Your task to perform on an android device: change keyboard looks Image 0: 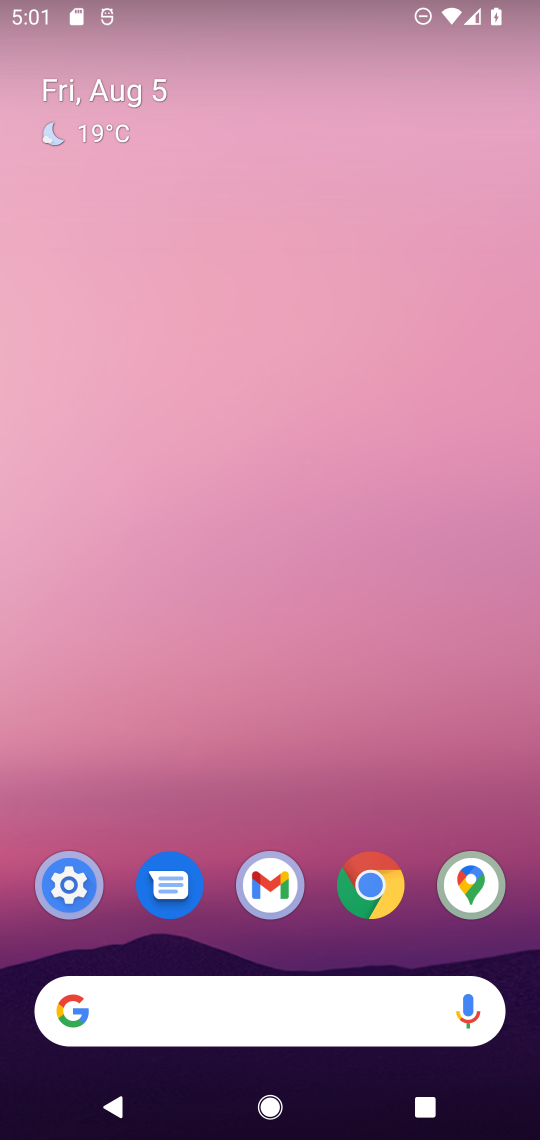
Step 0: drag from (332, 960) to (351, 0)
Your task to perform on an android device: change keyboard looks Image 1: 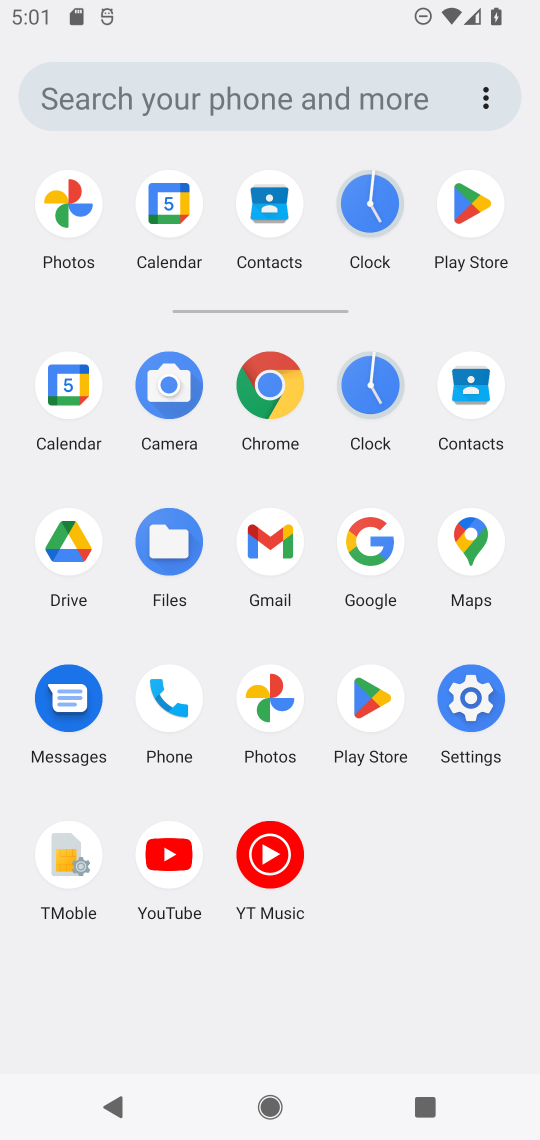
Step 1: click (463, 702)
Your task to perform on an android device: change keyboard looks Image 2: 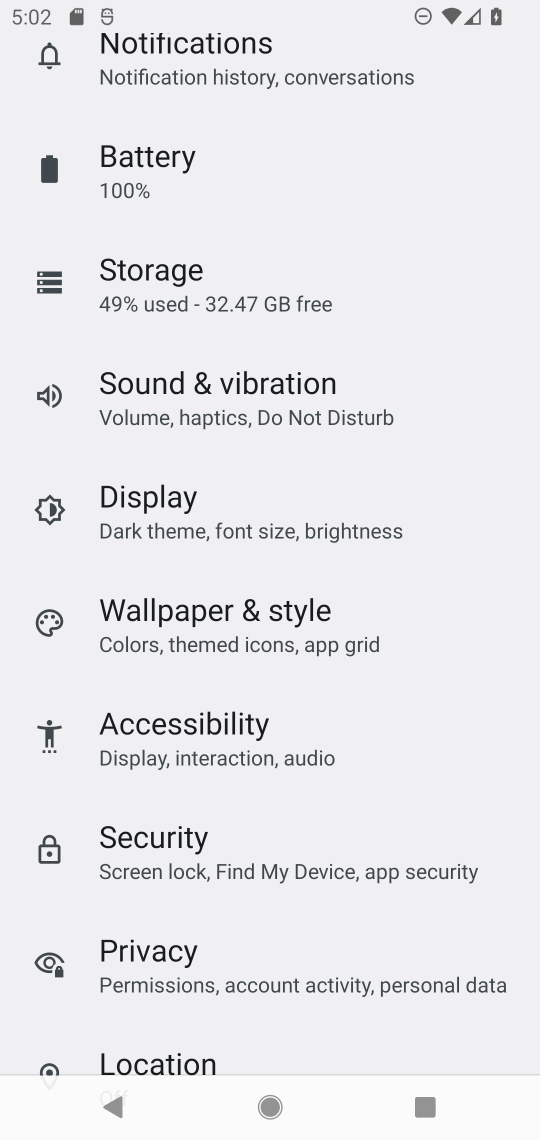
Step 2: drag from (144, 1016) to (176, 509)
Your task to perform on an android device: change keyboard looks Image 3: 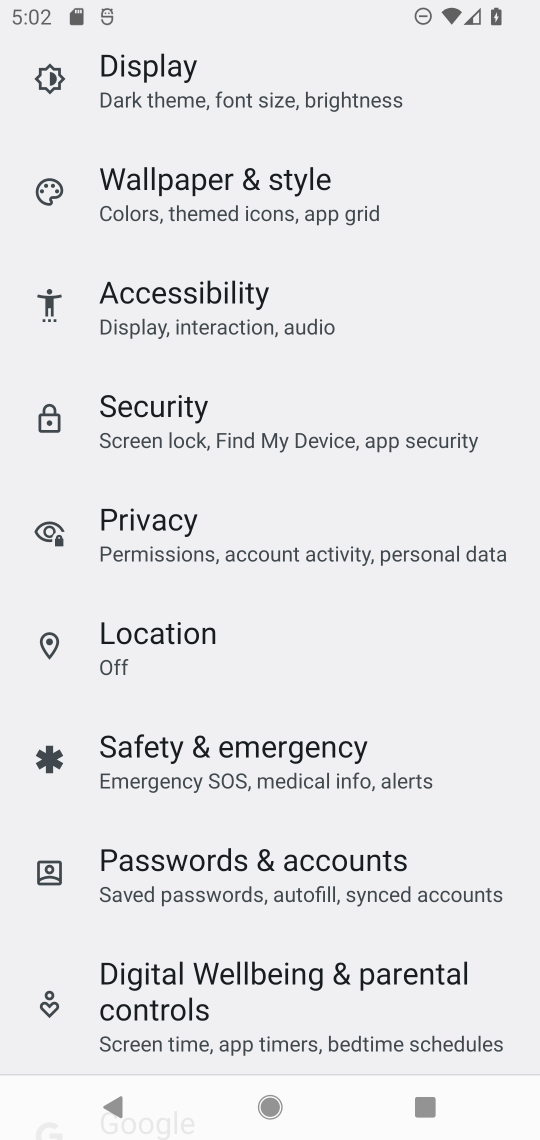
Step 3: drag from (158, 982) to (191, 306)
Your task to perform on an android device: change keyboard looks Image 4: 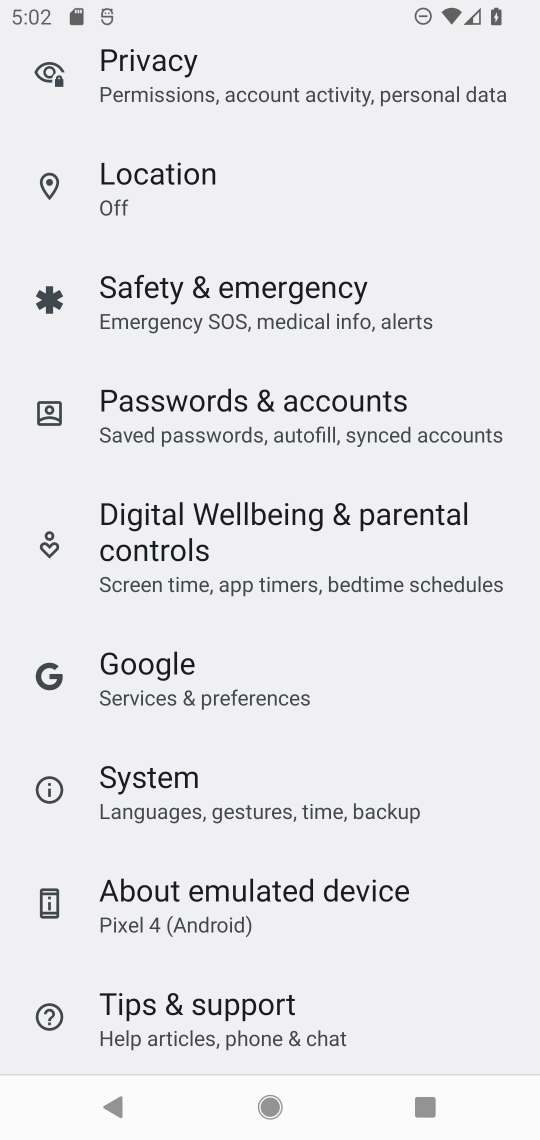
Step 4: drag from (145, 1017) to (154, 403)
Your task to perform on an android device: change keyboard looks Image 5: 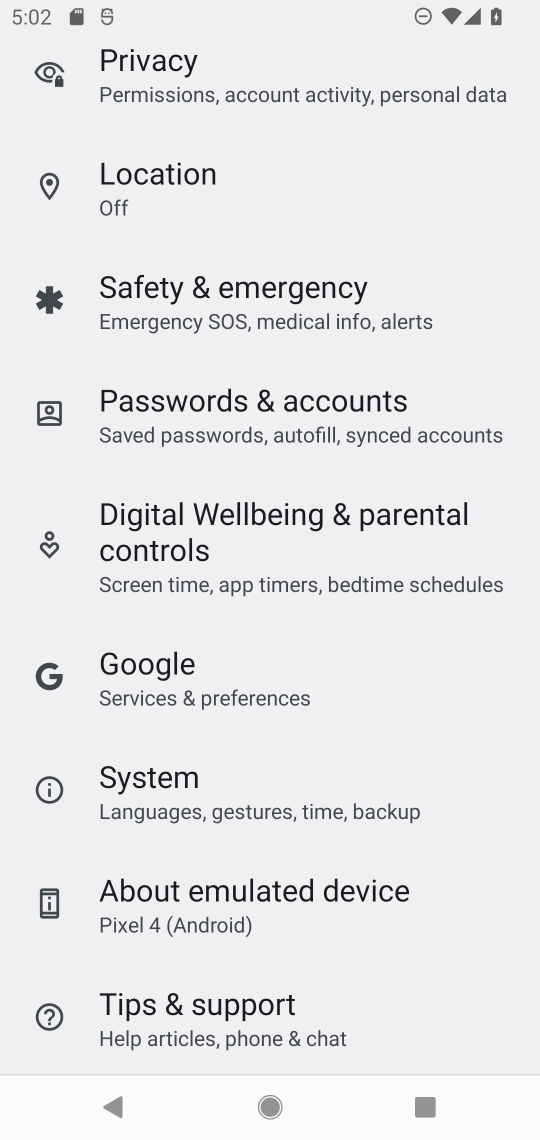
Step 5: click (170, 781)
Your task to perform on an android device: change keyboard looks Image 6: 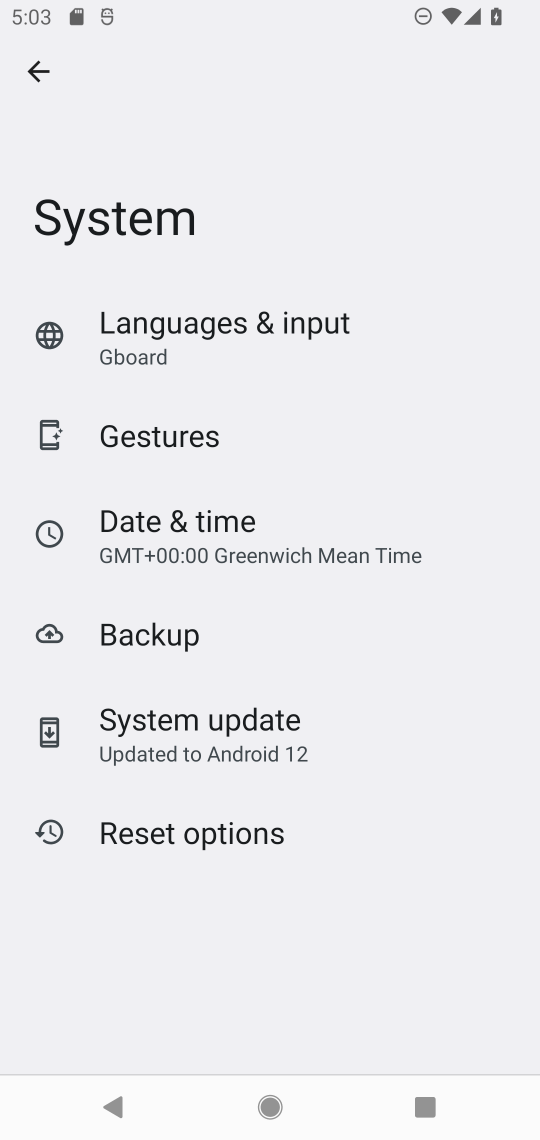
Step 6: click (165, 334)
Your task to perform on an android device: change keyboard looks Image 7: 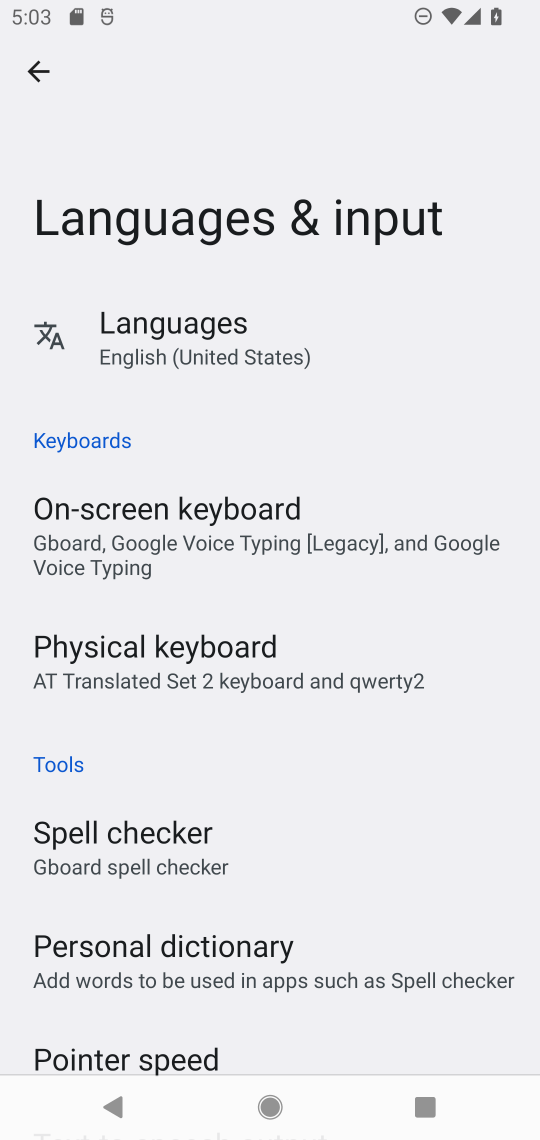
Step 7: click (134, 521)
Your task to perform on an android device: change keyboard looks Image 8: 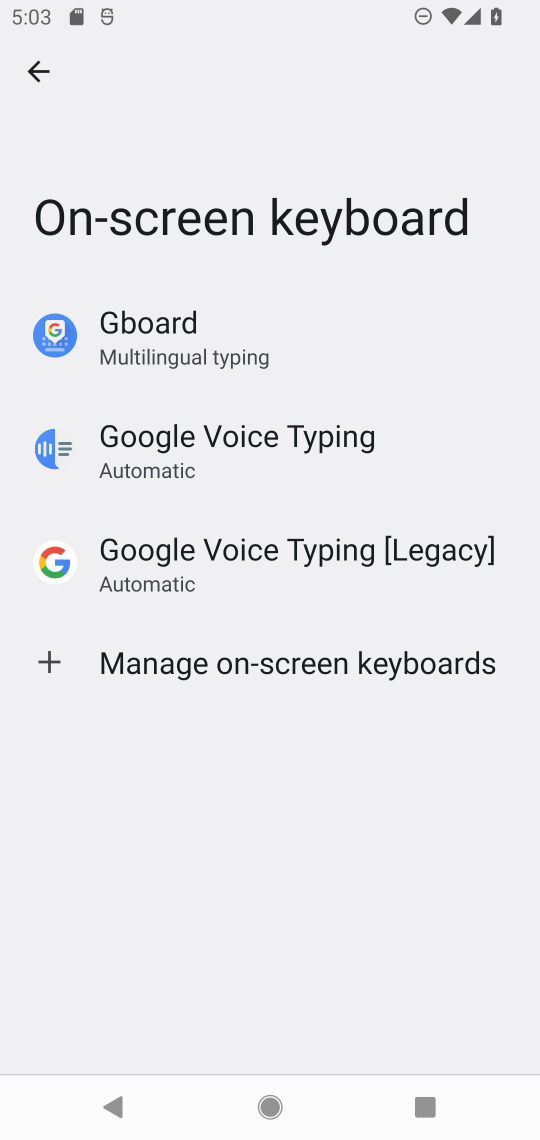
Step 8: click (166, 329)
Your task to perform on an android device: change keyboard looks Image 9: 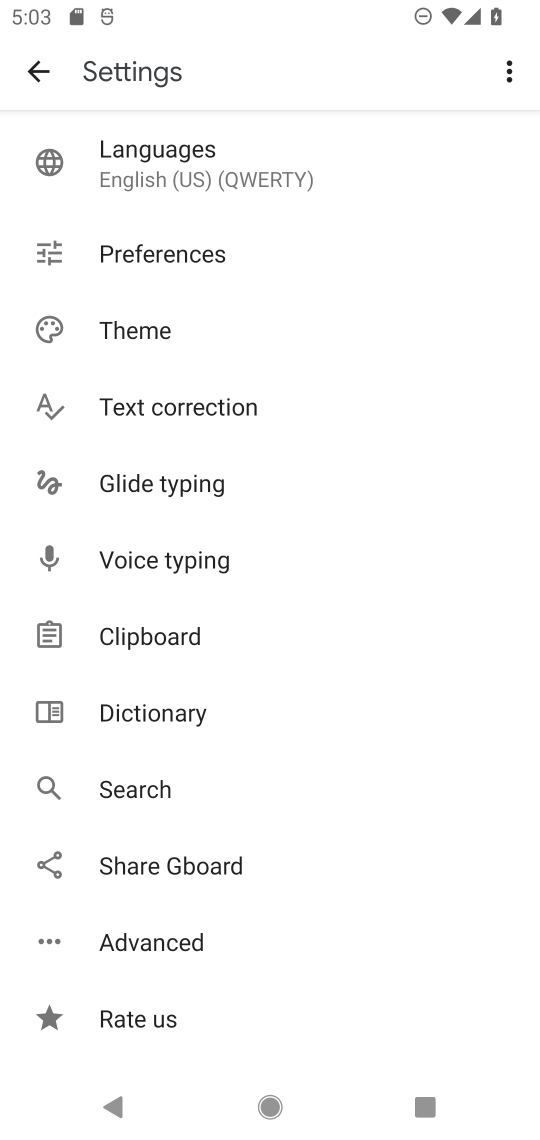
Step 9: click (139, 328)
Your task to perform on an android device: change keyboard looks Image 10: 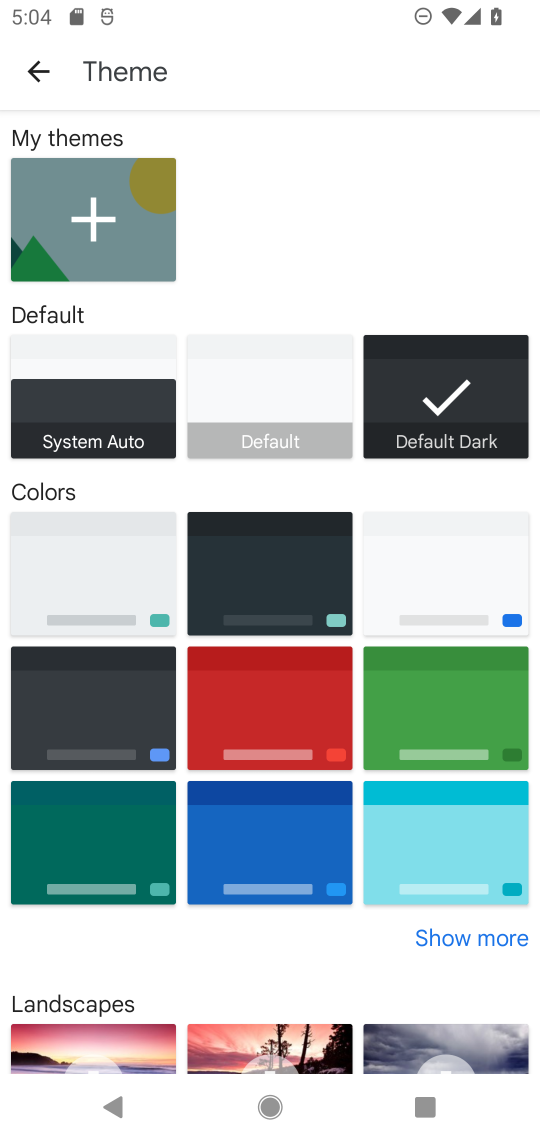
Step 10: click (299, 716)
Your task to perform on an android device: change keyboard looks Image 11: 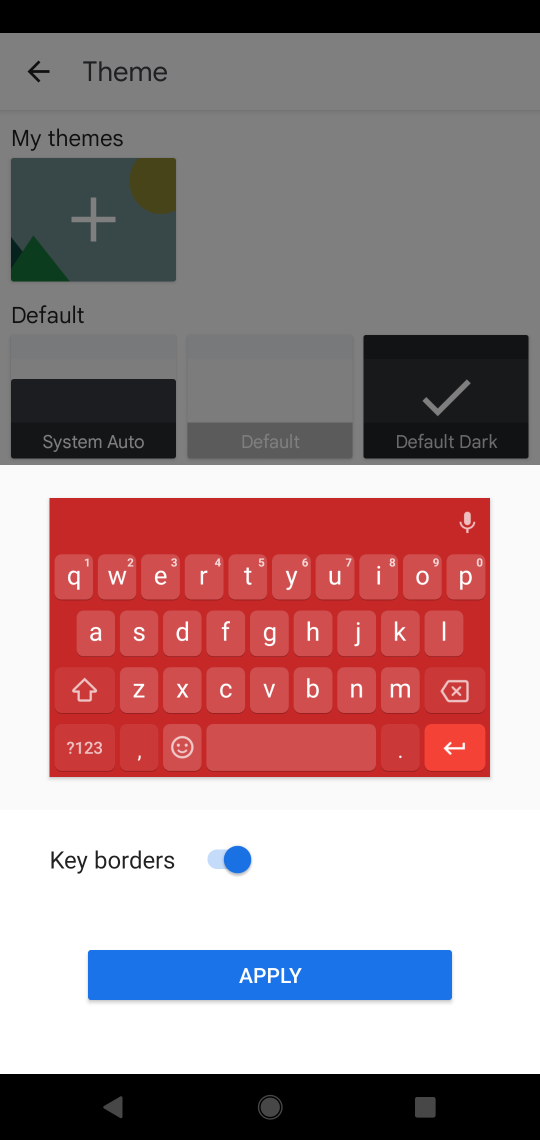
Step 11: click (245, 982)
Your task to perform on an android device: change keyboard looks Image 12: 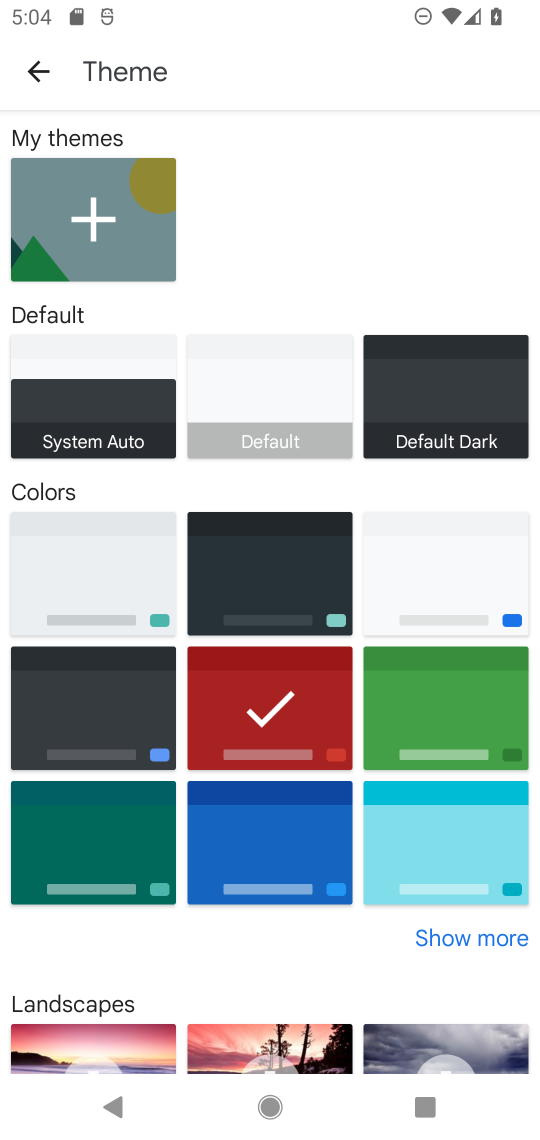
Step 12: task complete